Your task to perform on an android device: toggle show notifications on the lock screen Image 0: 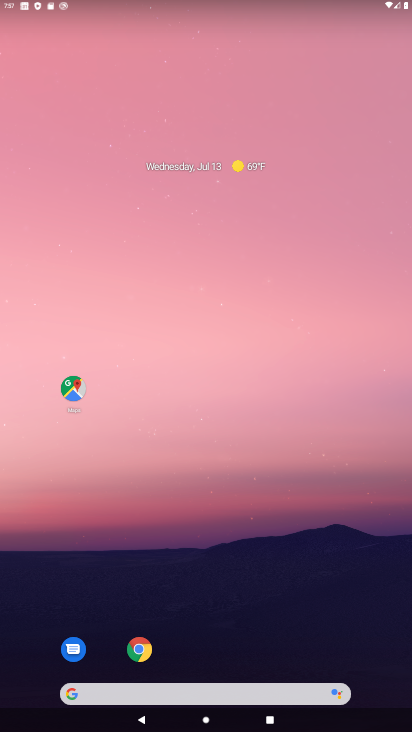
Step 0: drag from (213, 694) to (201, 306)
Your task to perform on an android device: toggle show notifications on the lock screen Image 1: 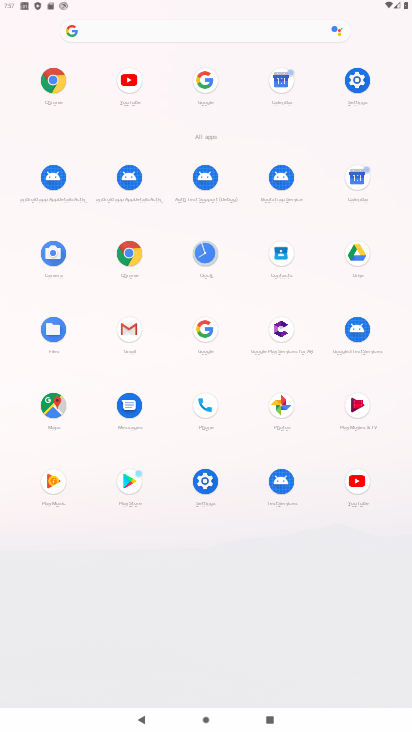
Step 1: click (358, 80)
Your task to perform on an android device: toggle show notifications on the lock screen Image 2: 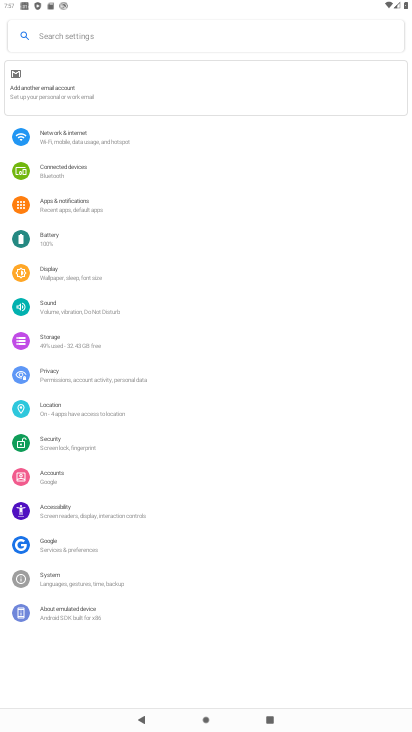
Step 2: click (74, 208)
Your task to perform on an android device: toggle show notifications on the lock screen Image 3: 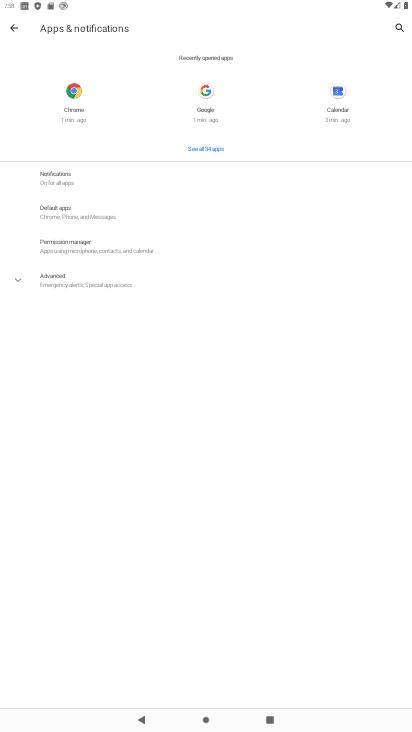
Step 3: click (65, 177)
Your task to perform on an android device: toggle show notifications on the lock screen Image 4: 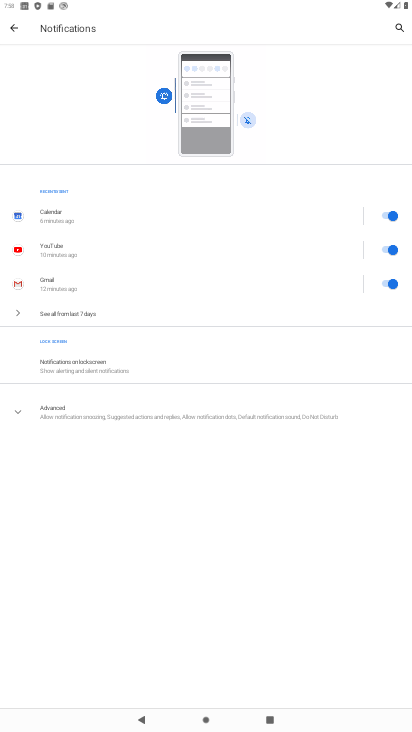
Step 4: click (115, 364)
Your task to perform on an android device: toggle show notifications on the lock screen Image 5: 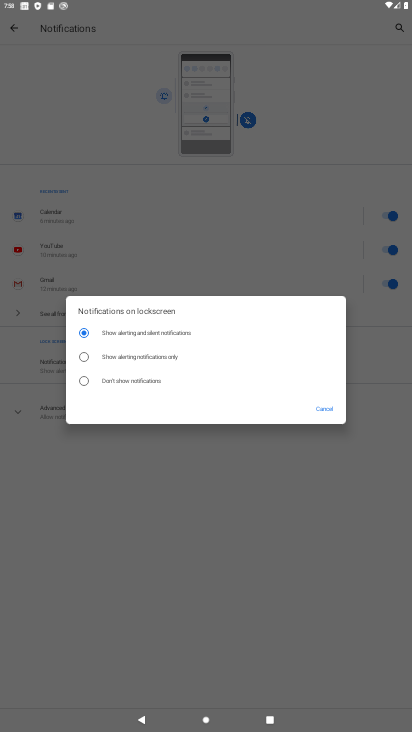
Step 5: click (84, 382)
Your task to perform on an android device: toggle show notifications on the lock screen Image 6: 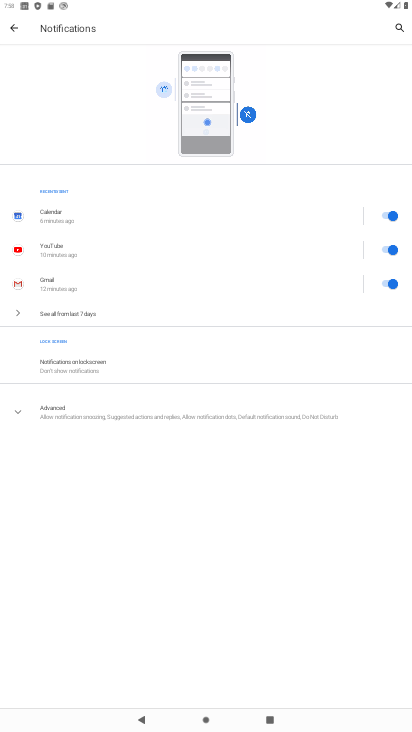
Step 6: task complete